Your task to perform on an android device: Go to ESPN.com Image 0: 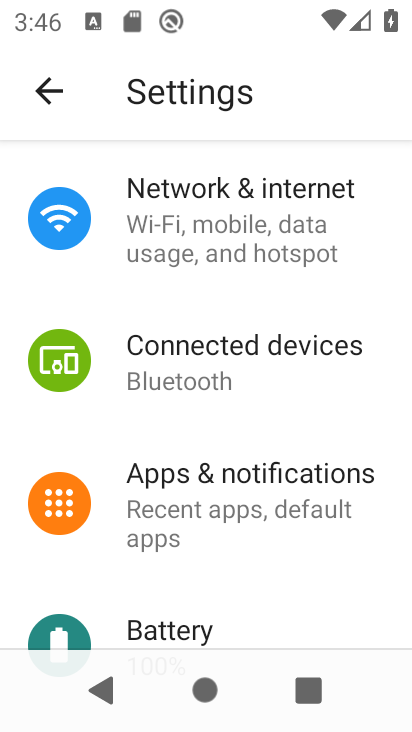
Step 0: press home button
Your task to perform on an android device: Go to ESPN.com Image 1: 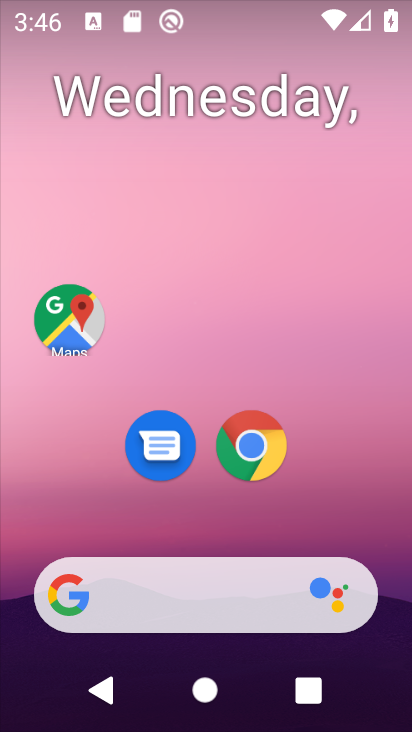
Step 1: click (255, 445)
Your task to perform on an android device: Go to ESPN.com Image 2: 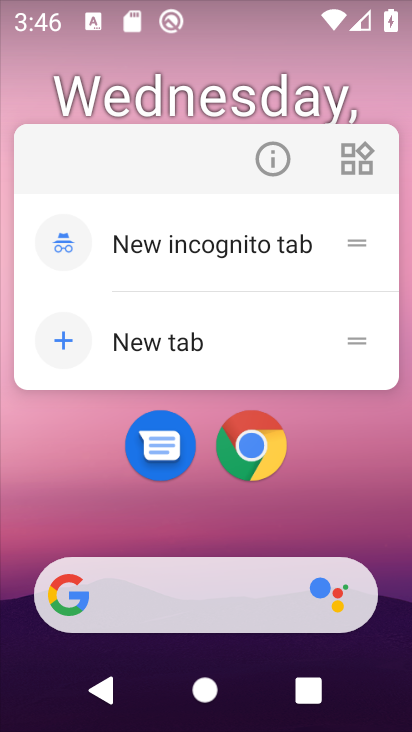
Step 2: click (257, 442)
Your task to perform on an android device: Go to ESPN.com Image 3: 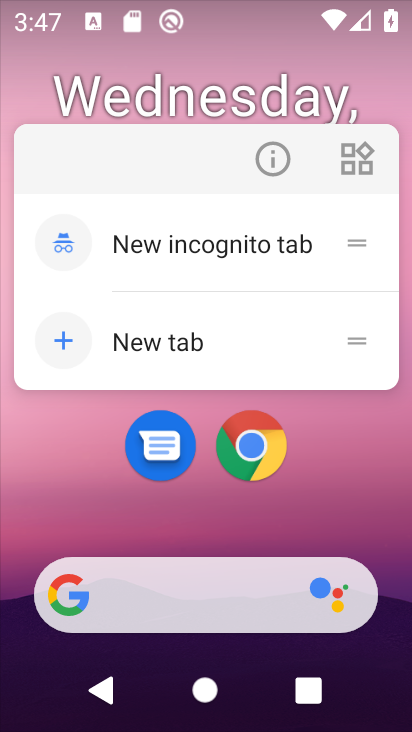
Step 3: click (257, 449)
Your task to perform on an android device: Go to ESPN.com Image 4: 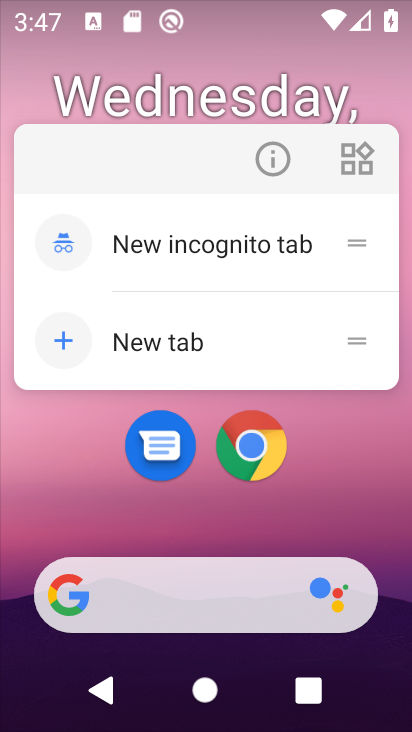
Step 4: click (252, 447)
Your task to perform on an android device: Go to ESPN.com Image 5: 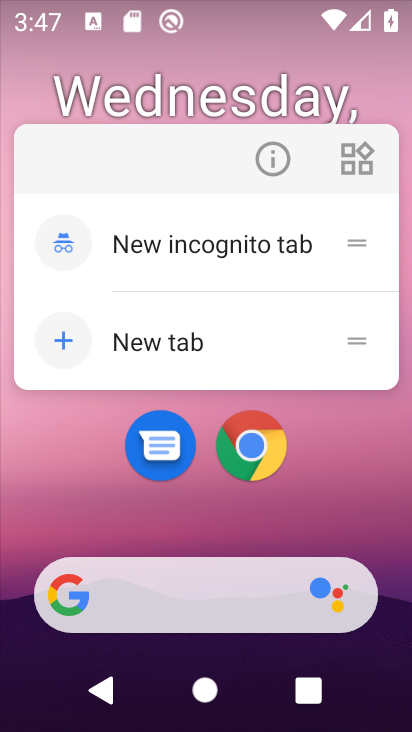
Step 5: click (249, 452)
Your task to perform on an android device: Go to ESPN.com Image 6: 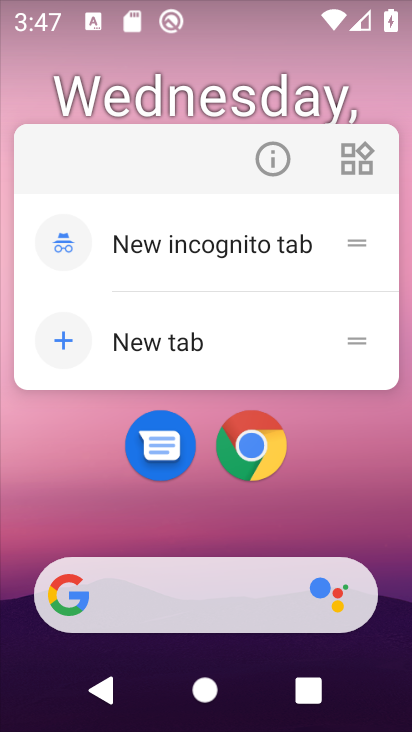
Step 6: click (249, 452)
Your task to perform on an android device: Go to ESPN.com Image 7: 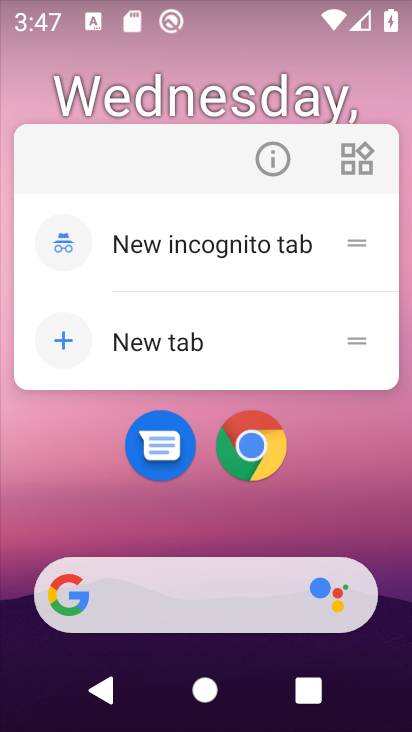
Step 7: click (261, 458)
Your task to perform on an android device: Go to ESPN.com Image 8: 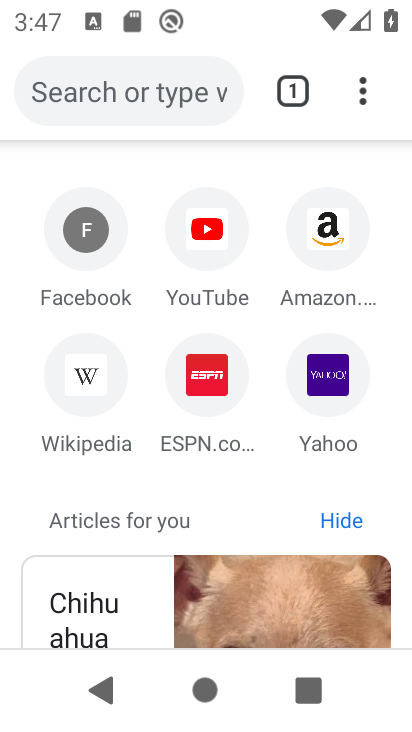
Step 8: click (93, 86)
Your task to perform on an android device: Go to ESPN.com Image 9: 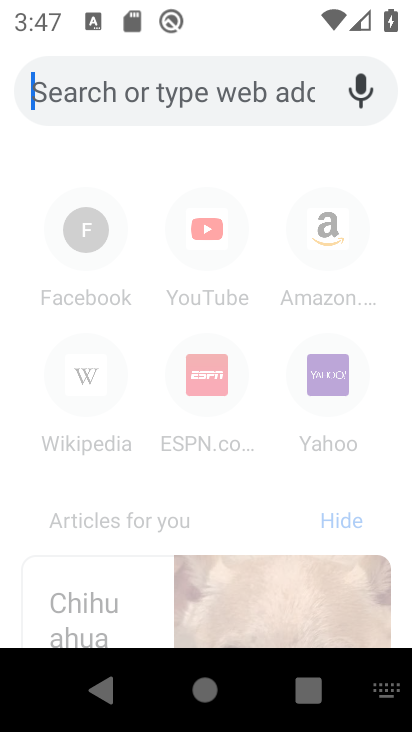
Step 9: press back button
Your task to perform on an android device: Go to ESPN.com Image 10: 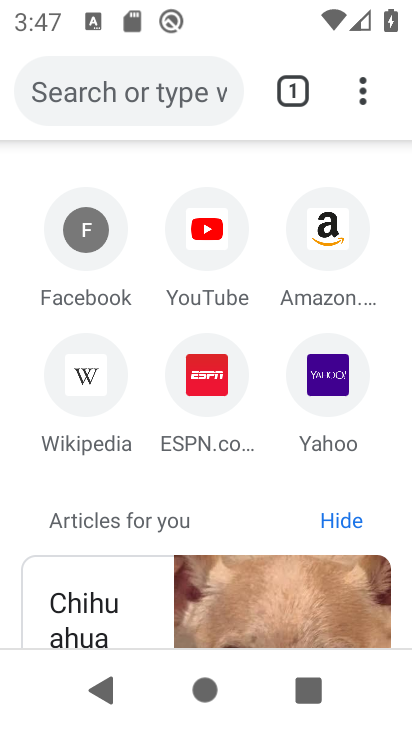
Step 10: click (214, 399)
Your task to perform on an android device: Go to ESPN.com Image 11: 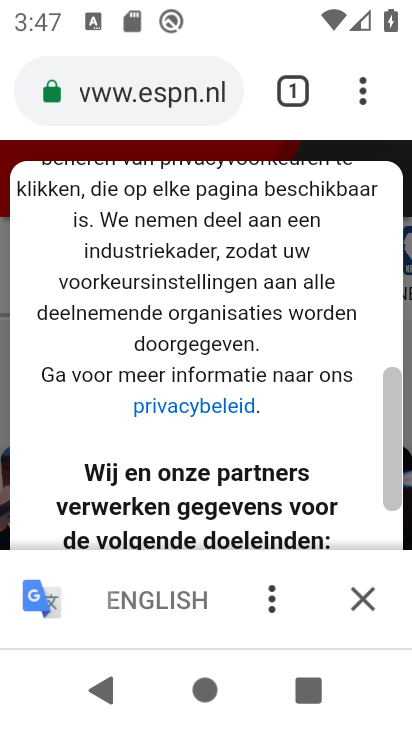
Step 11: task complete